Your task to perform on an android device: Open notification settings Image 0: 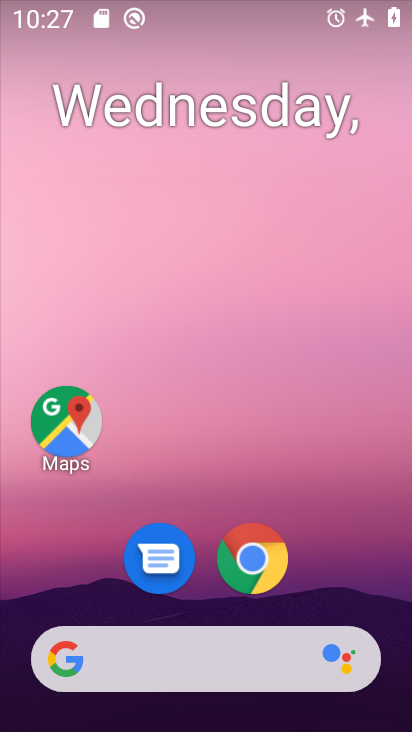
Step 0: drag from (365, 573) to (411, 372)
Your task to perform on an android device: Open notification settings Image 1: 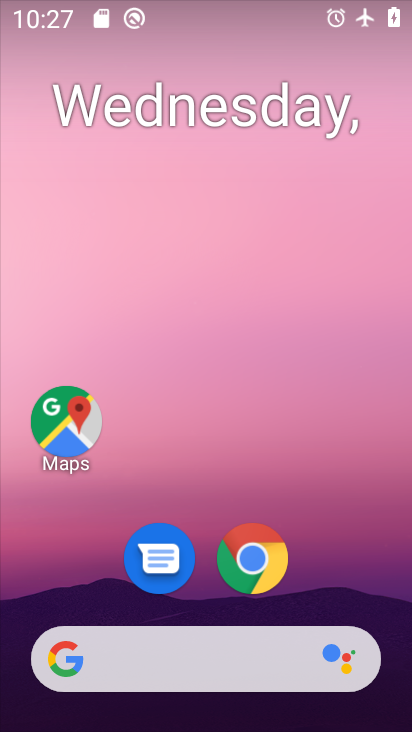
Step 1: drag from (348, 567) to (355, 79)
Your task to perform on an android device: Open notification settings Image 2: 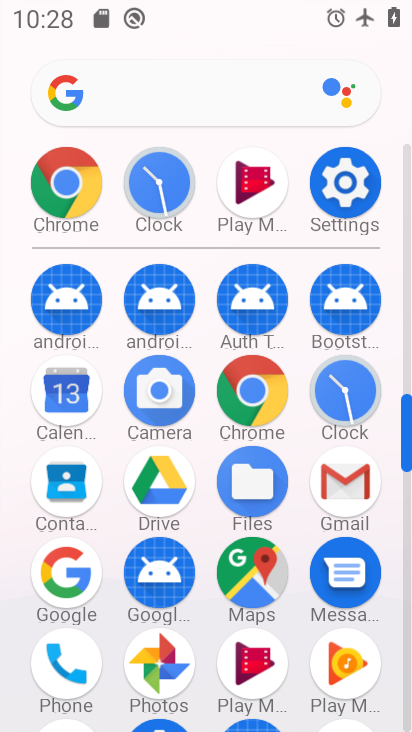
Step 2: click (352, 186)
Your task to perform on an android device: Open notification settings Image 3: 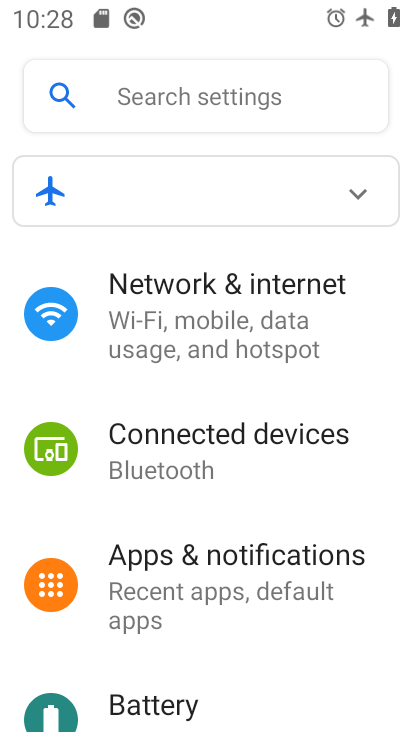
Step 3: drag from (385, 487) to (376, 380)
Your task to perform on an android device: Open notification settings Image 4: 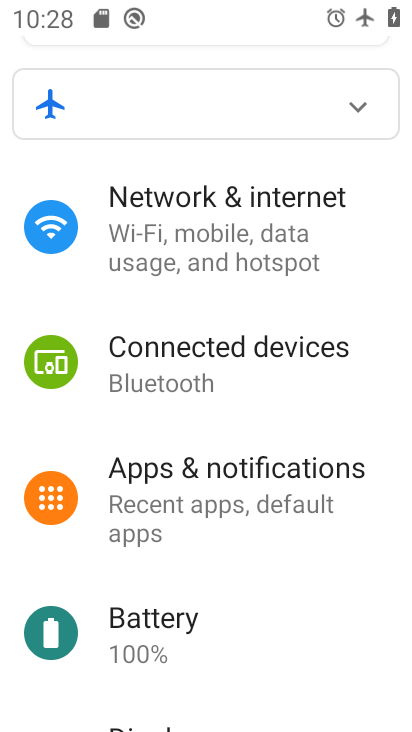
Step 4: drag from (361, 550) to (367, 381)
Your task to perform on an android device: Open notification settings Image 5: 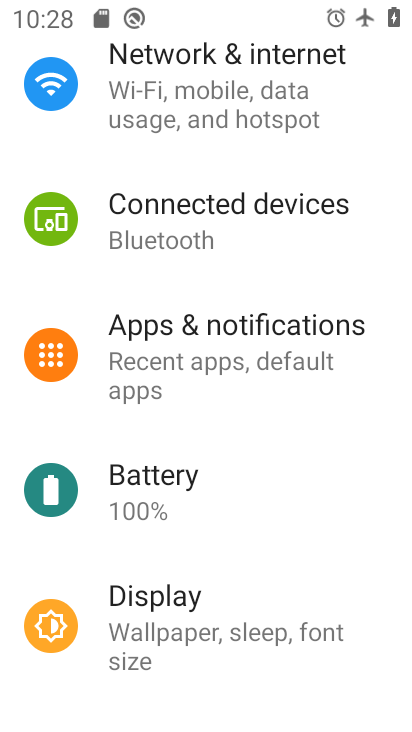
Step 5: drag from (358, 520) to (366, 384)
Your task to perform on an android device: Open notification settings Image 6: 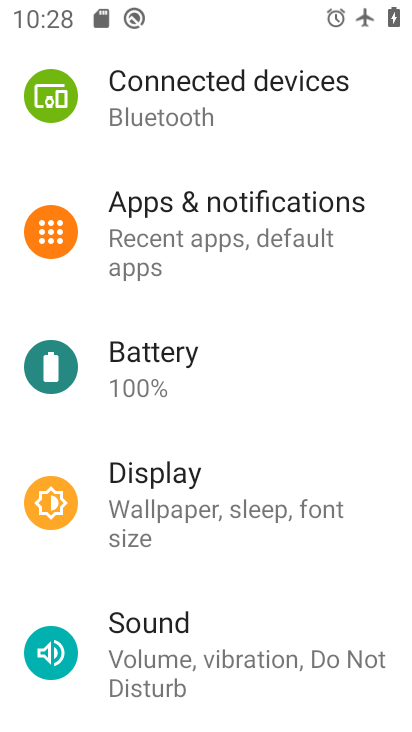
Step 6: drag from (352, 583) to (353, 452)
Your task to perform on an android device: Open notification settings Image 7: 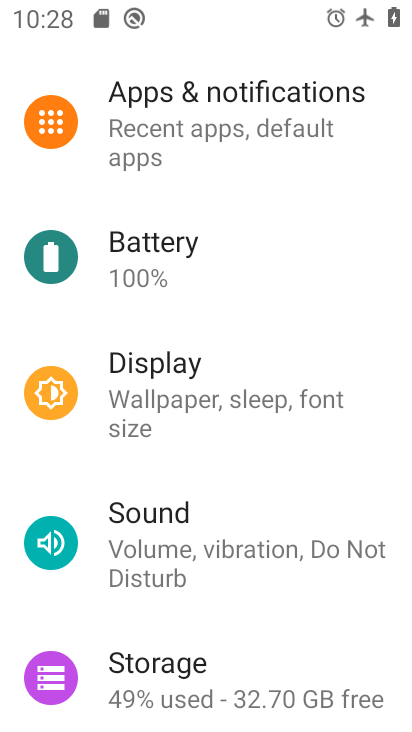
Step 7: drag from (357, 494) to (348, 367)
Your task to perform on an android device: Open notification settings Image 8: 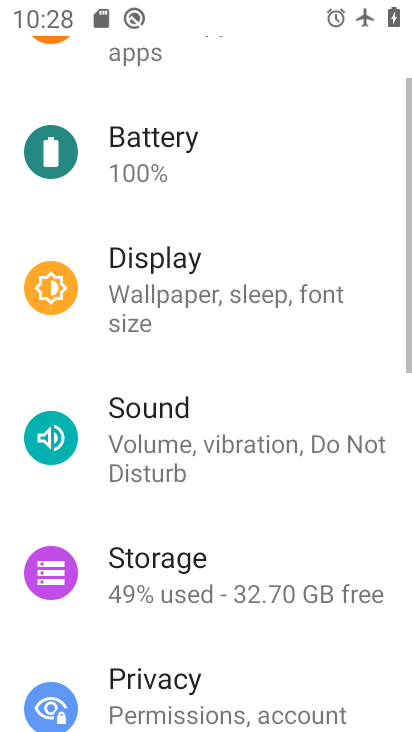
Step 8: drag from (338, 223) to (345, 407)
Your task to perform on an android device: Open notification settings Image 9: 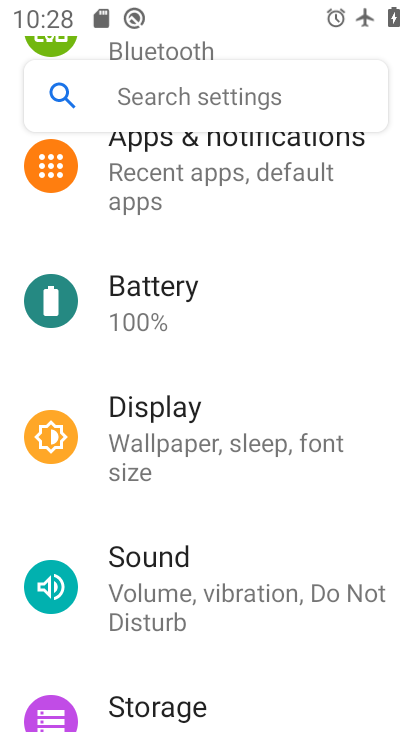
Step 9: drag from (359, 218) to (344, 367)
Your task to perform on an android device: Open notification settings Image 10: 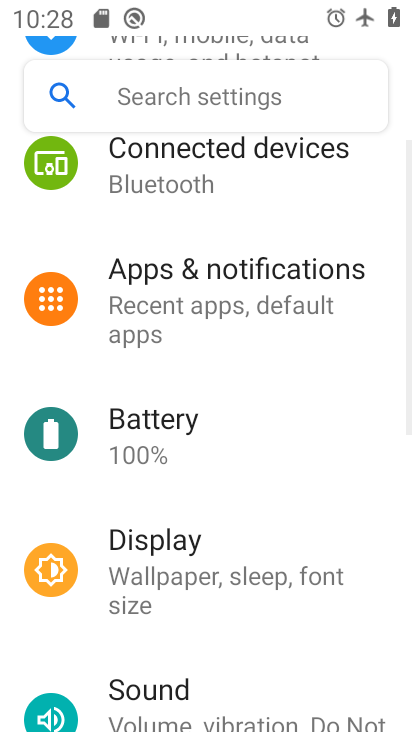
Step 10: click (291, 287)
Your task to perform on an android device: Open notification settings Image 11: 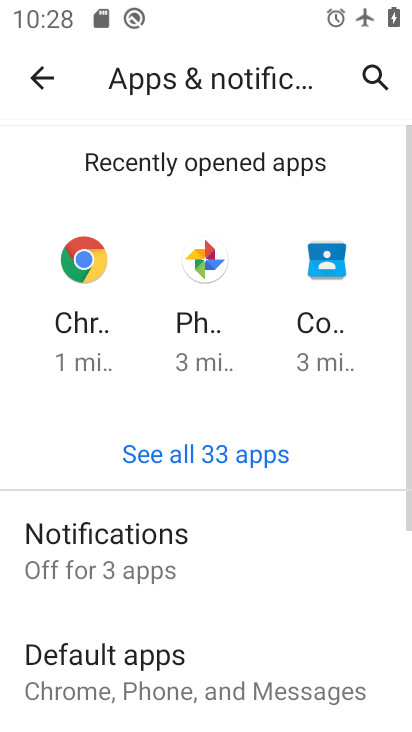
Step 11: drag from (286, 545) to (279, 284)
Your task to perform on an android device: Open notification settings Image 12: 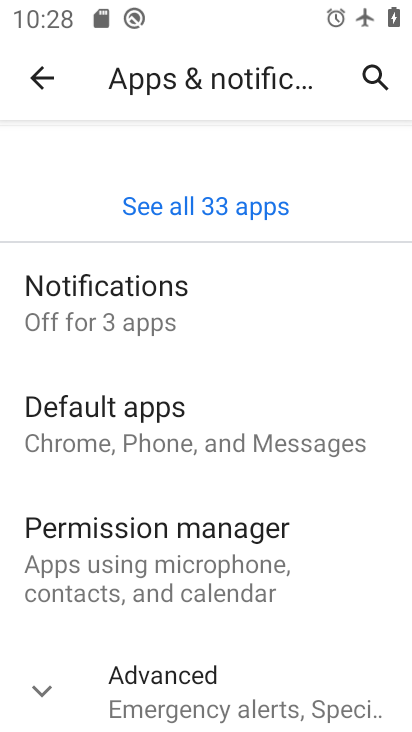
Step 12: click (133, 317)
Your task to perform on an android device: Open notification settings Image 13: 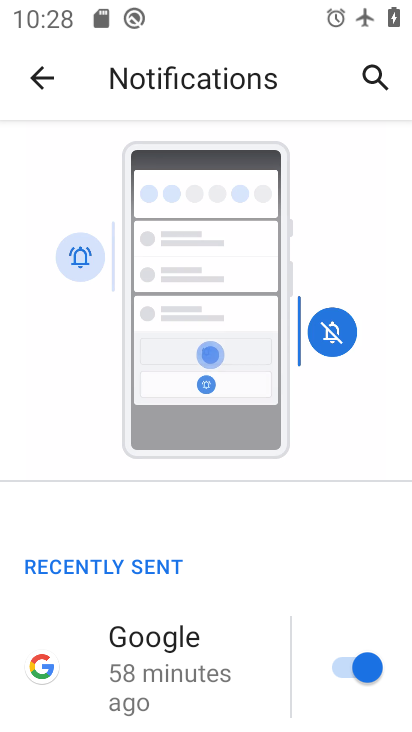
Step 13: drag from (265, 536) to (270, 404)
Your task to perform on an android device: Open notification settings Image 14: 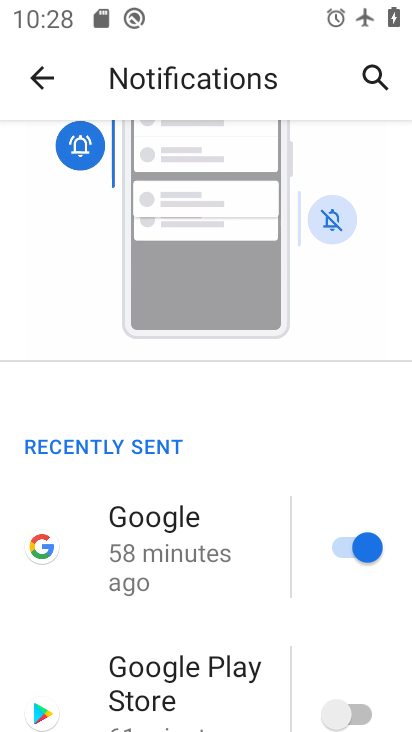
Step 14: drag from (252, 545) to (251, 419)
Your task to perform on an android device: Open notification settings Image 15: 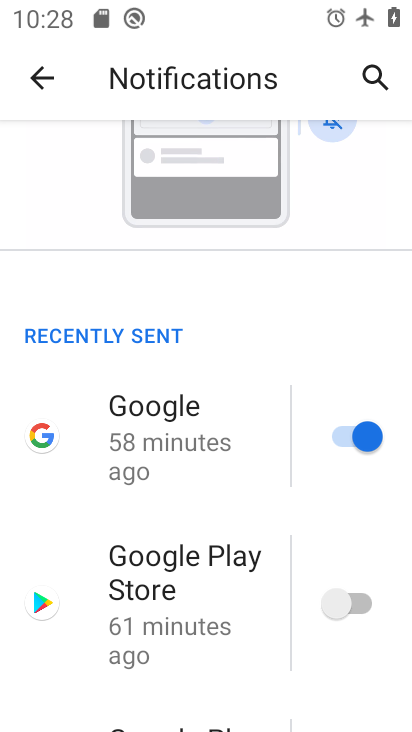
Step 15: drag from (258, 596) to (252, 442)
Your task to perform on an android device: Open notification settings Image 16: 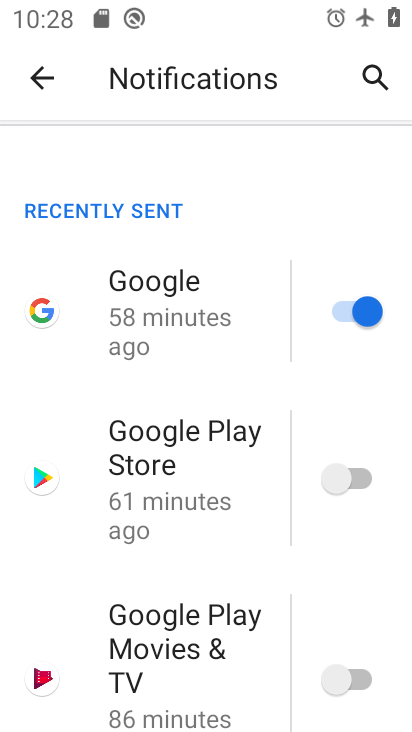
Step 16: drag from (262, 565) to (249, 436)
Your task to perform on an android device: Open notification settings Image 17: 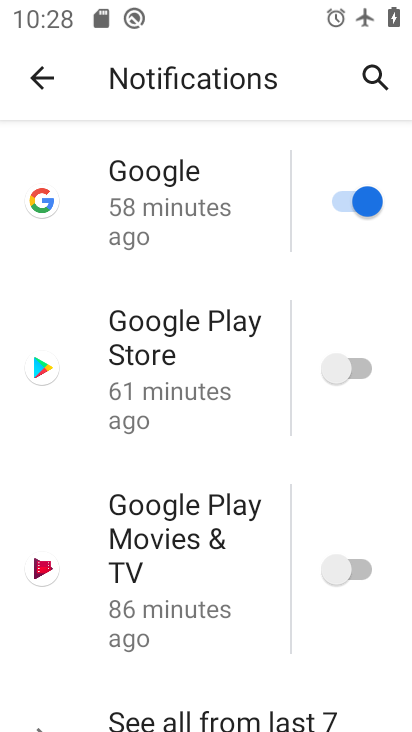
Step 17: drag from (255, 639) to (254, 504)
Your task to perform on an android device: Open notification settings Image 18: 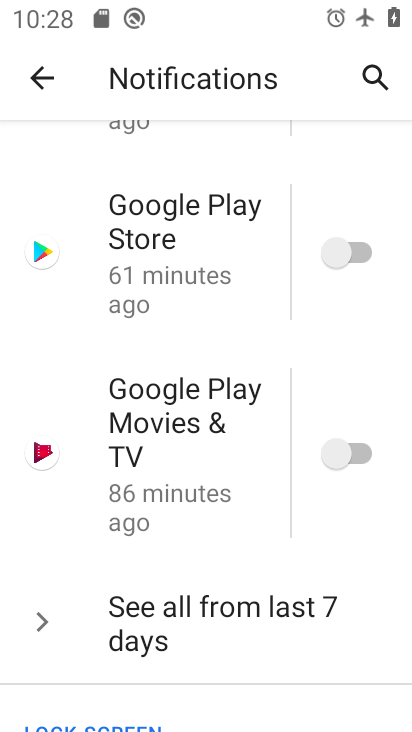
Step 18: click (346, 453)
Your task to perform on an android device: Open notification settings Image 19: 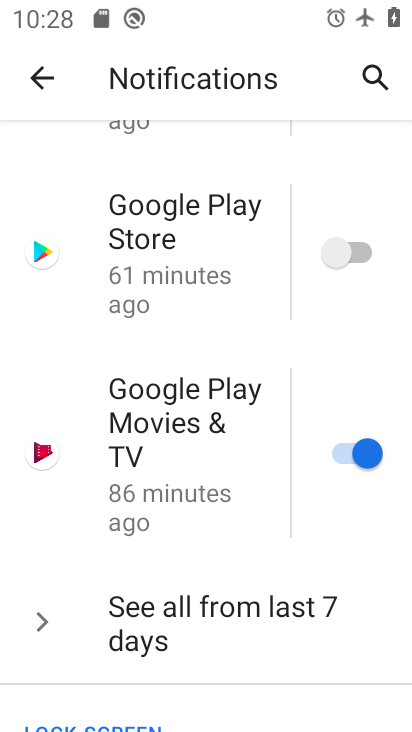
Step 19: click (345, 257)
Your task to perform on an android device: Open notification settings Image 20: 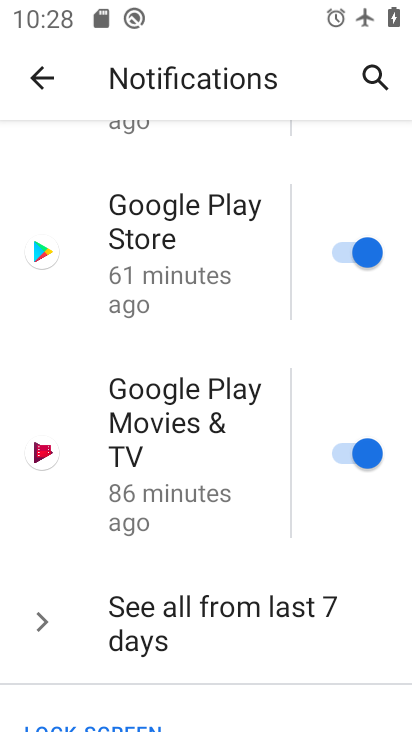
Step 20: task complete